Your task to perform on an android device: Show me the alarms in the clock app Image 0: 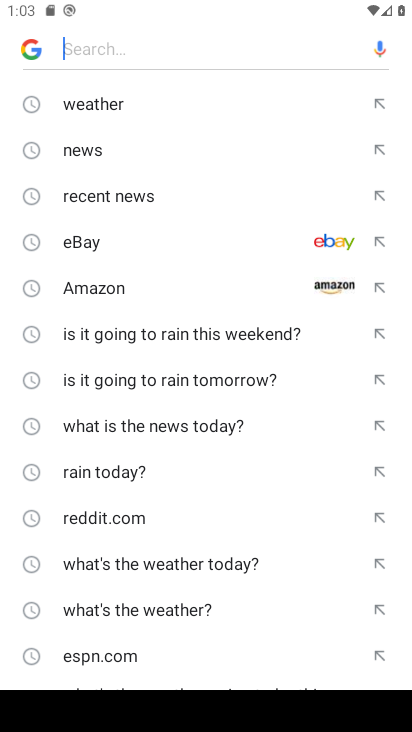
Step 0: press back button
Your task to perform on an android device: Show me the alarms in the clock app Image 1: 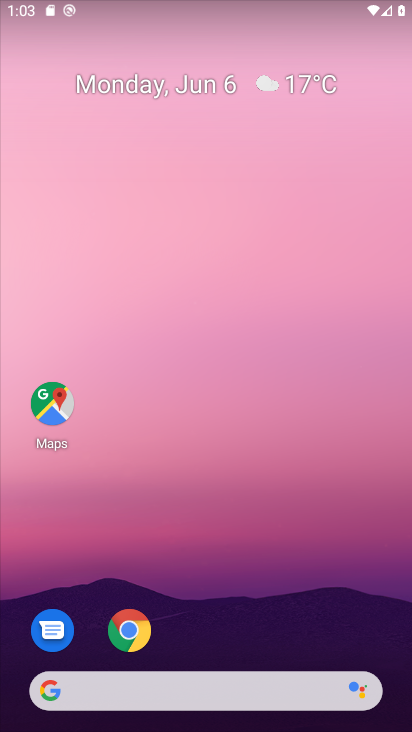
Step 1: drag from (126, 730) to (261, 3)
Your task to perform on an android device: Show me the alarms in the clock app Image 2: 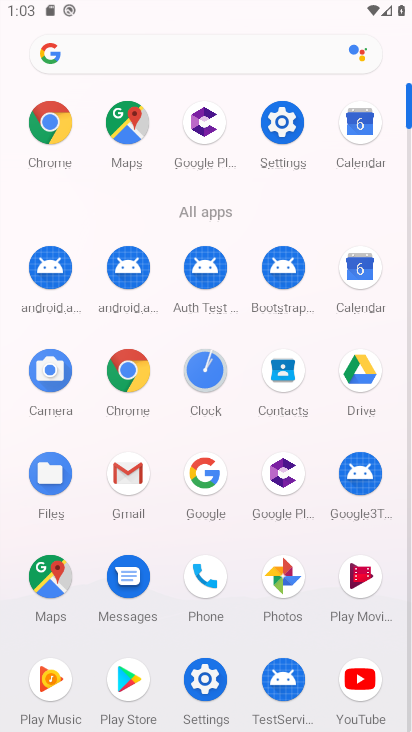
Step 2: click (204, 380)
Your task to perform on an android device: Show me the alarms in the clock app Image 3: 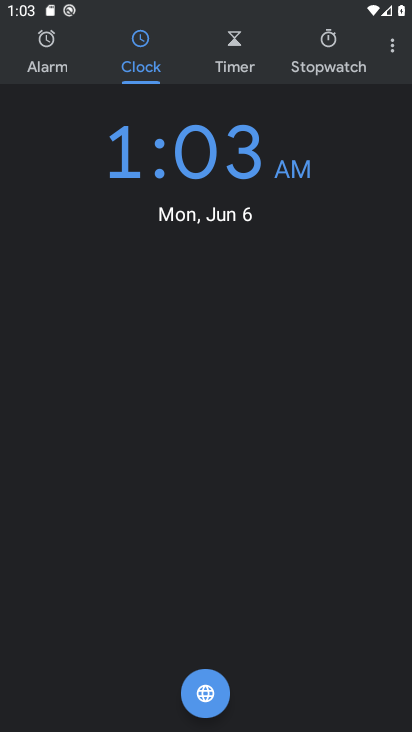
Step 3: click (52, 49)
Your task to perform on an android device: Show me the alarms in the clock app Image 4: 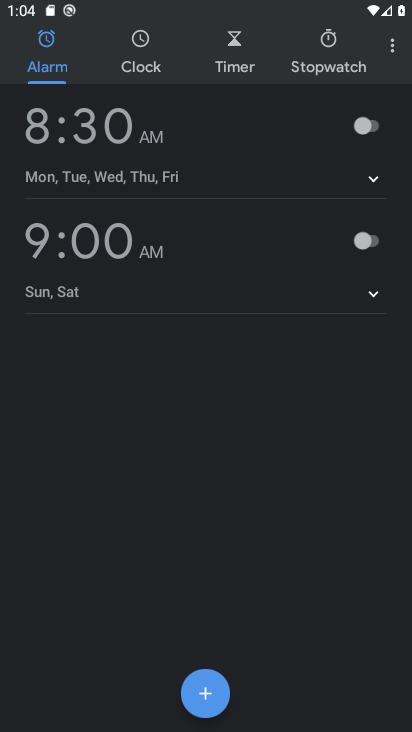
Step 4: task complete